Your task to perform on an android device: change notifications settings Image 0: 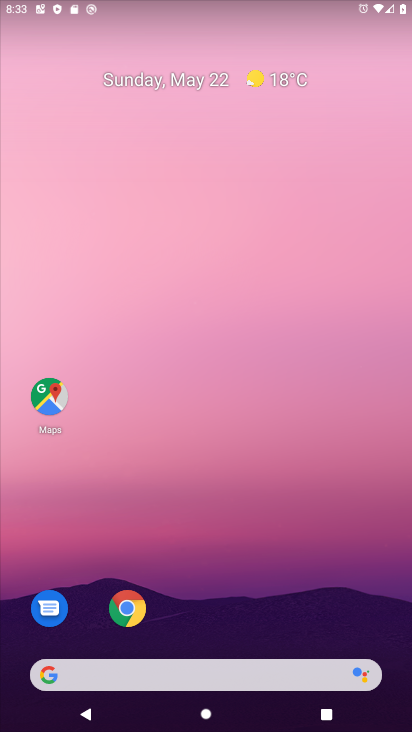
Step 0: drag from (219, 727) to (230, 74)
Your task to perform on an android device: change notifications settings Image 1: 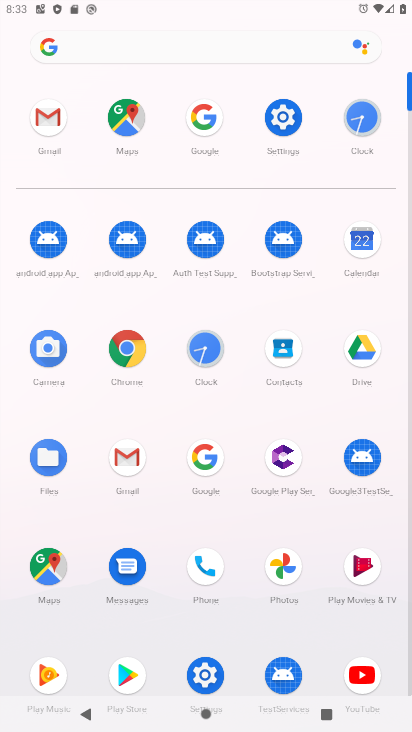
Step 1: click (283, 107)
Your task to perform on an android device: change notifications settings Image 2: 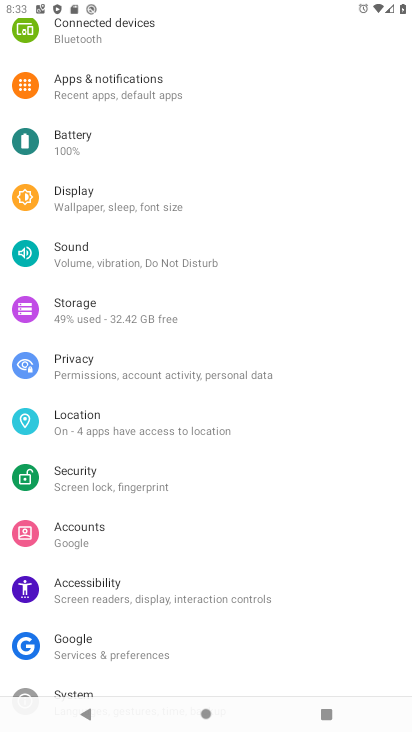
Step 2: click (122, 81)
Your task to perform on an android device: change notifications settings Image 3: 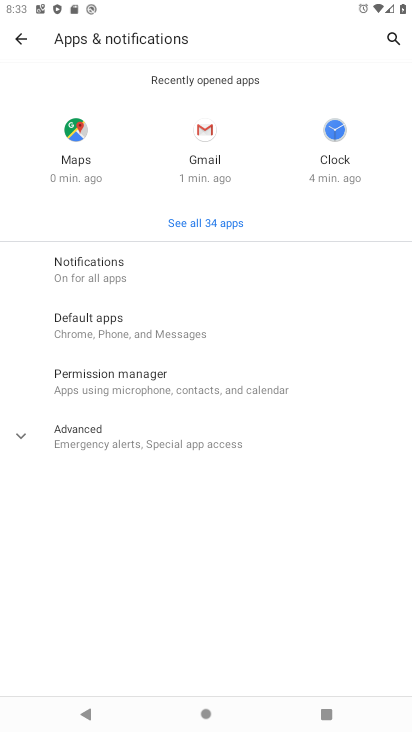
Step 3: click (96, 272)
Your task to perform on an android device: change notifications settings Image 4: 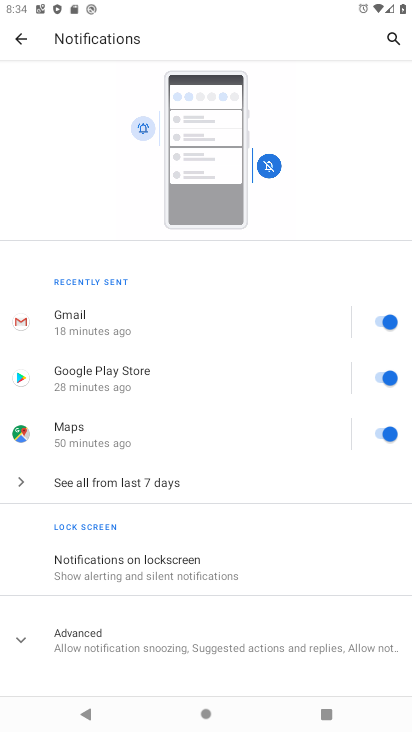
Step 4: drag from (137, 565) to (141, 207)
Your task to perform on an android device: change notifications settings Image 5: 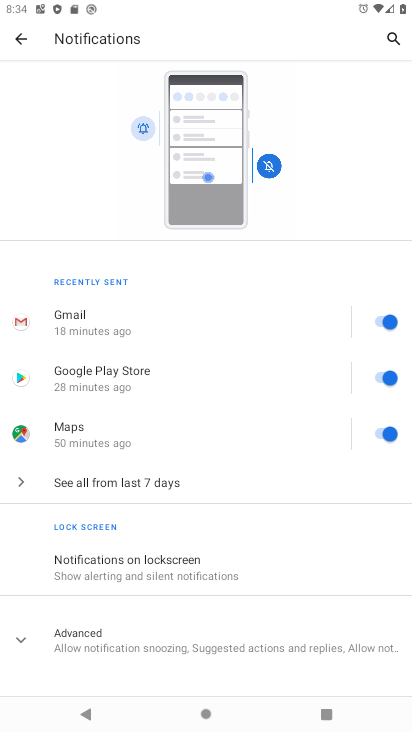
Step 5: click (132, 642)
Your task to perform on an android device: change notifications settings Image 6: 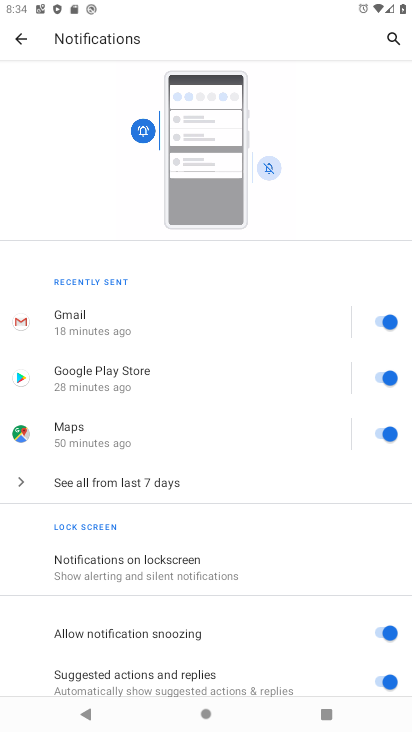
Step 6: click (379, 629)
Your task to perform on an android device: change notifications settings Image 7: 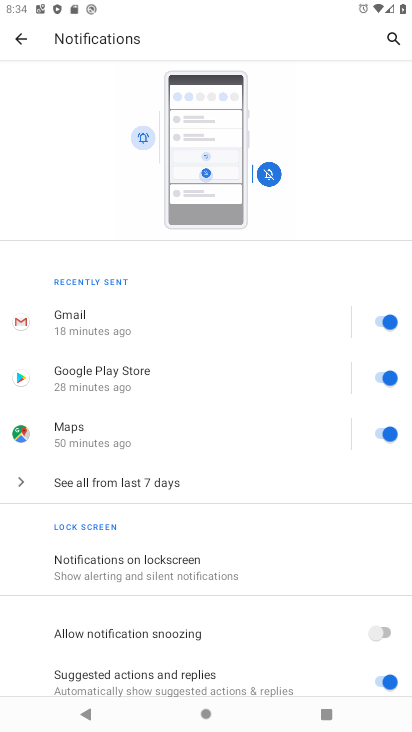
Step 7: task complete